Your task to perform on an android device: Open Youtube and go to the subscriptions tab Image 0: 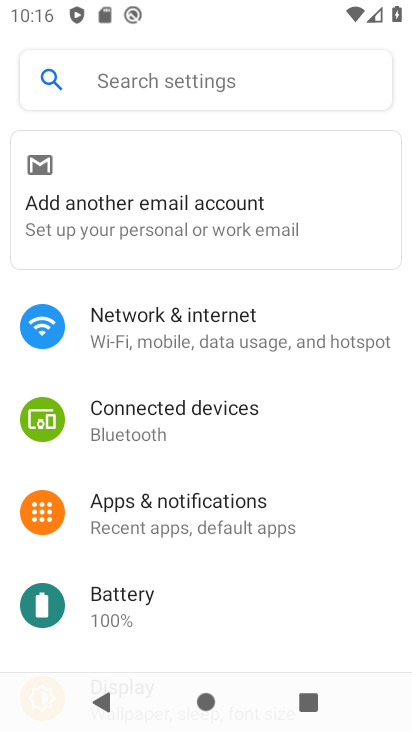
Step 0: press home button
Your task to perform on an android device: Open Youtube and go to the subscriptions tab Image 1: 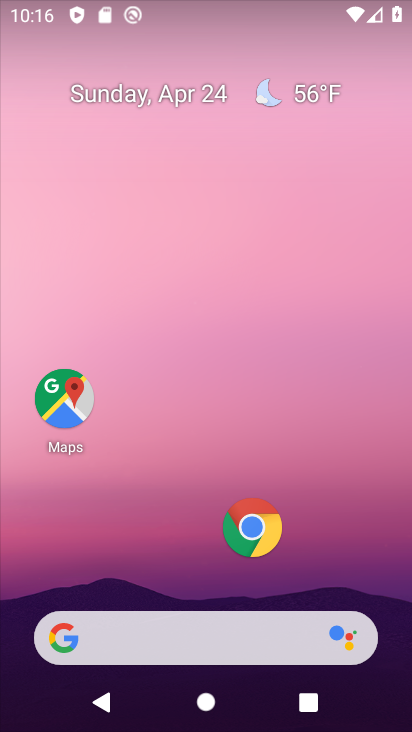
Step 1: drag from (154, 557) to (316, 32)
Your task to perform on an android device: Open Youtube and go to the subscriptions tab Image 2: 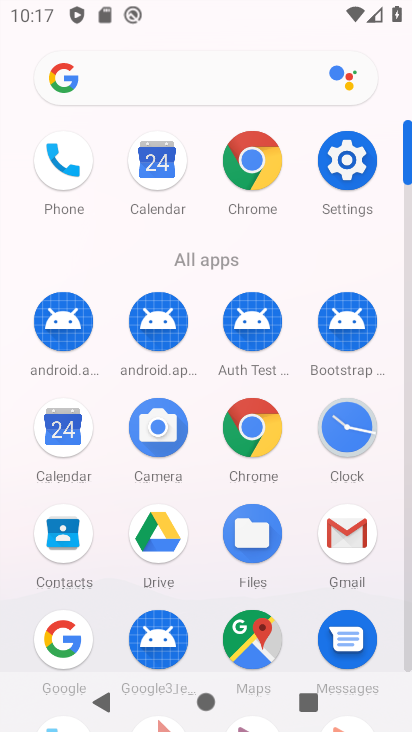
Step 2: drag from (292, 551) to (296, 180)
Your task to perform on an android device: Open Youtube and go to the subscriptions tab Image 3: 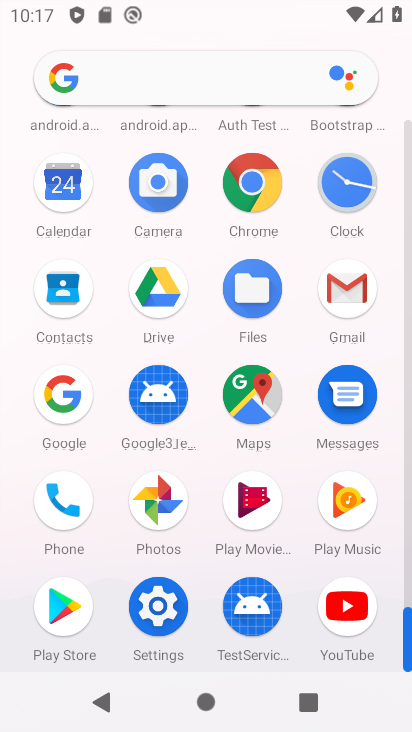
Step 3: click (352, 622)
Your task to perform on an android device: Open Youtube and go to the subscriptions tab Image 4: 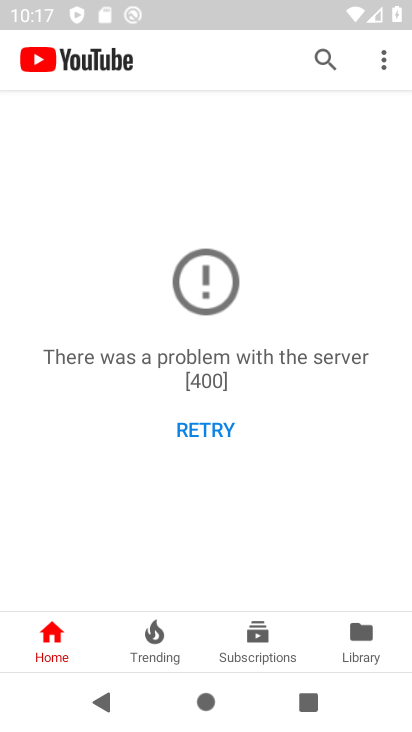
Step 4: click (244, 644)
Your task to perform on an android device: Open Youtube and go to the subscriptions tab Image 5: 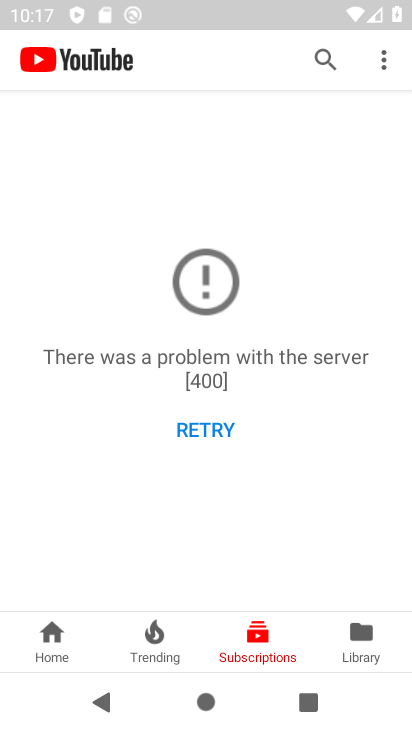
Step 5: task complete